Your task to perform on an android device: Go to network settings Image 0: 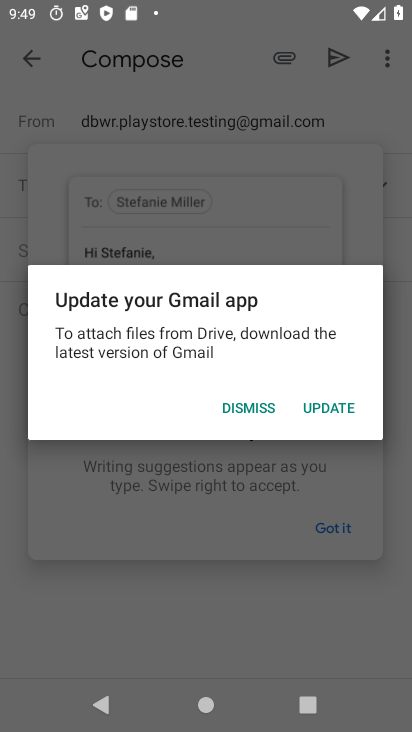
Step 0: press home button
Your task to perform on an android device: Go to network settings Image 1: 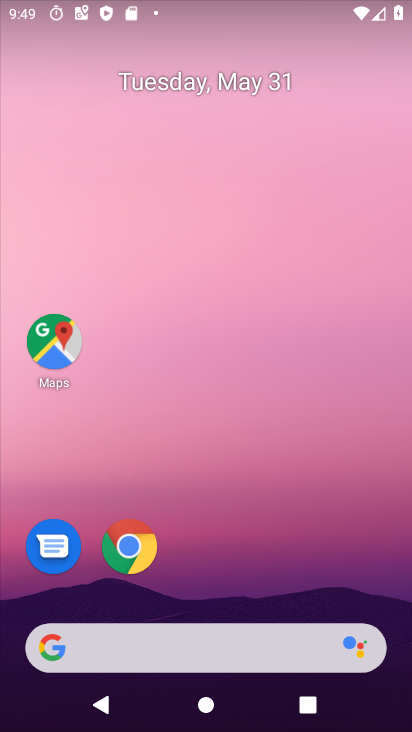
Step 1: press home button
Your task to perform on an android device: Go to network settings Image 2: 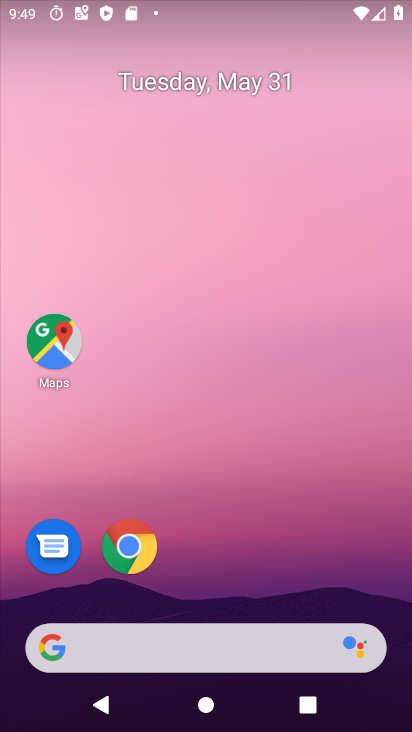
Step 2: press home button
Your task to perform on an android device: Go to network settings Image 3: 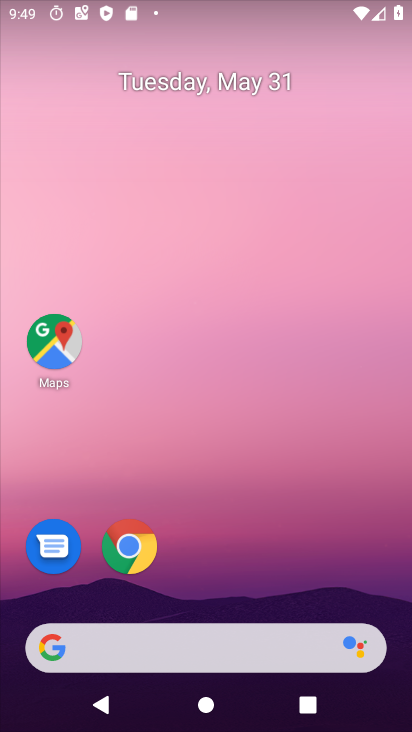
Step 3: drag from (229, 566) to (127, 4)
Your task to perform on an android device: Go to network settings Image 4: 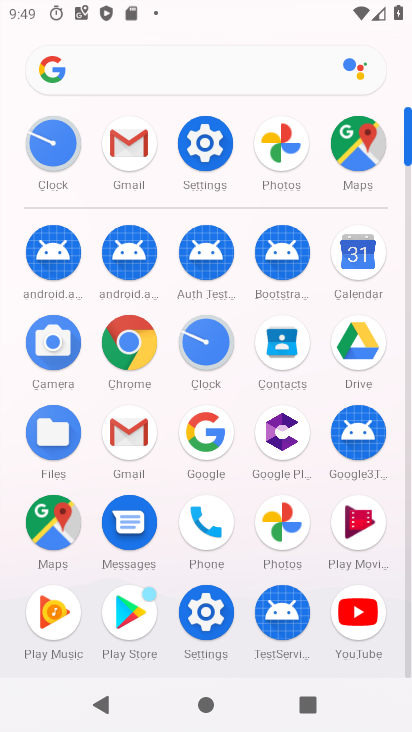
Step 4: click (219, 141)
Your task to perform on an android device: Go to network settings Image 5: 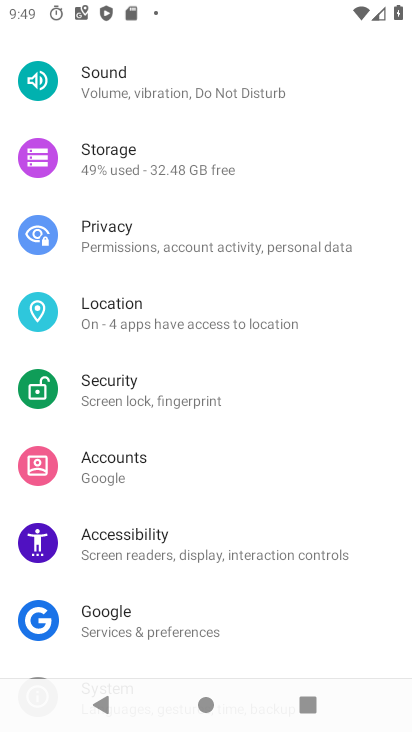
Step 5: drag from (190, 55) to (233, 542)
Your task to perform on an android device: Go to network settings Image 6: 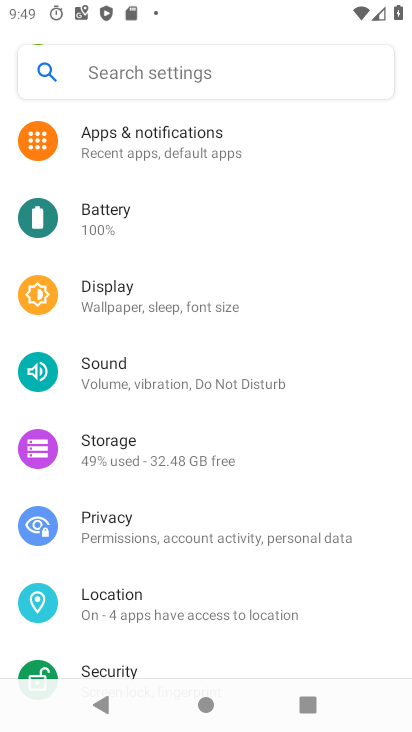
Step 6: drag from (161, 121) to (165, 606)
Your task to perform on an android device: Go to network settings Image 7: 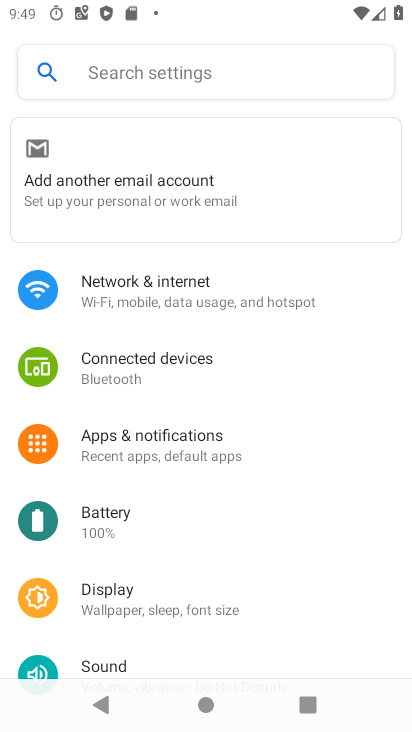
Step 7: click (216, 298)
Your task to perform on an android device: Go to network settings Image 8: 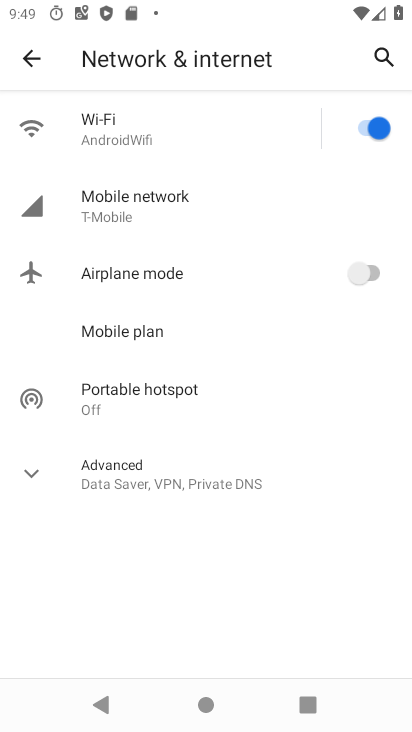
Step 8: click (167, 204)
Your task to perform on an android device: Go to network settings Image 9: 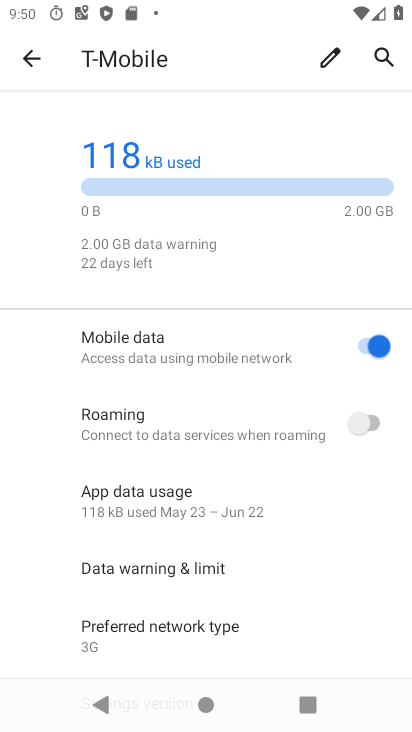
Step 9: task complete